Your task to perform on an android device: What's the weather going to be tomorrow? Image 0: 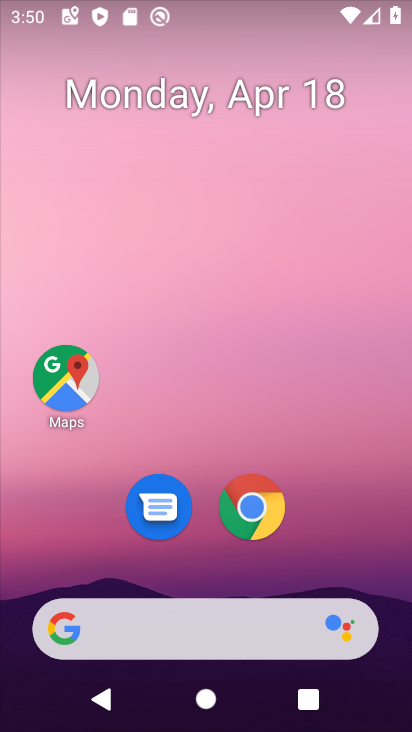
Step 0: click (260, 519)
Your task to perform on an android device: What's the weather going to be tomorrow? Image 1: 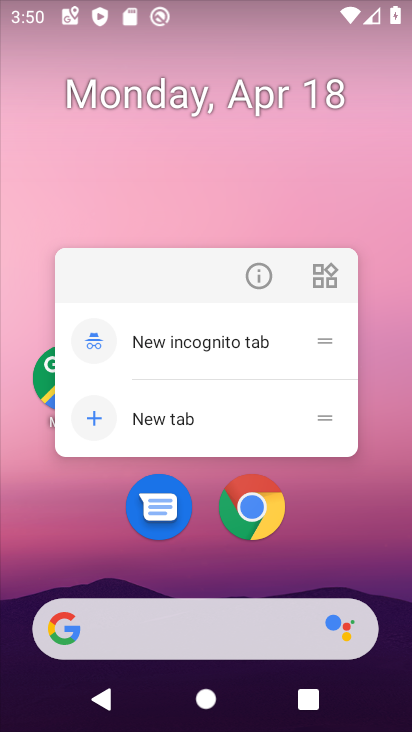
Step 1: click (260, 519)
Your task to perform on an android device: What's the weather going to be tomorrow? Image 2: 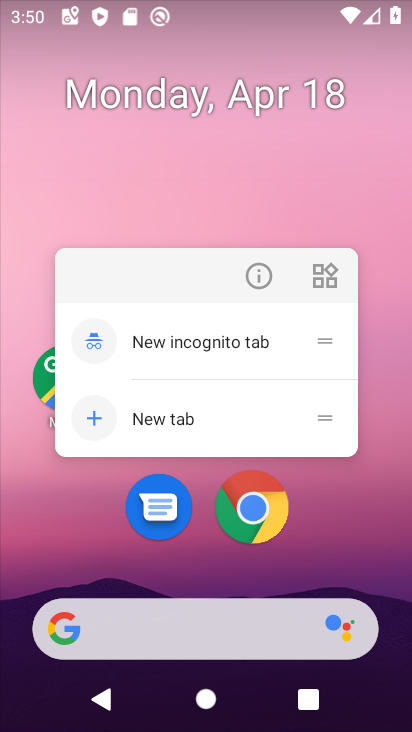
Step 2: click (270, 521)
Your task to perform on an android device: What's the weather going to be tomorrow? Image 3: 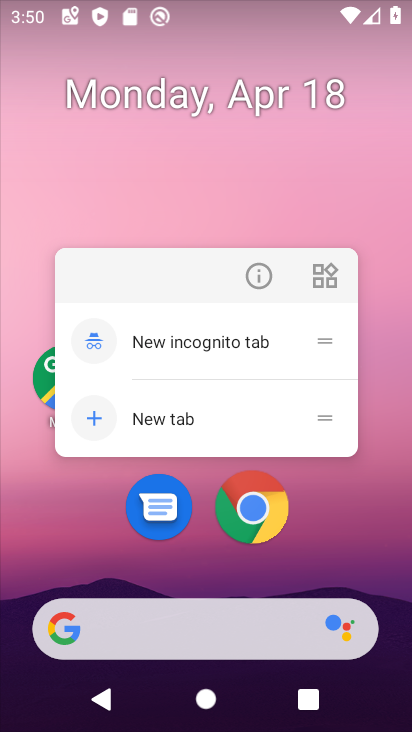
Step 3: click (270, 521)
Your task to perform on an android device: What's the weather going to be tomorrow? Image 4: 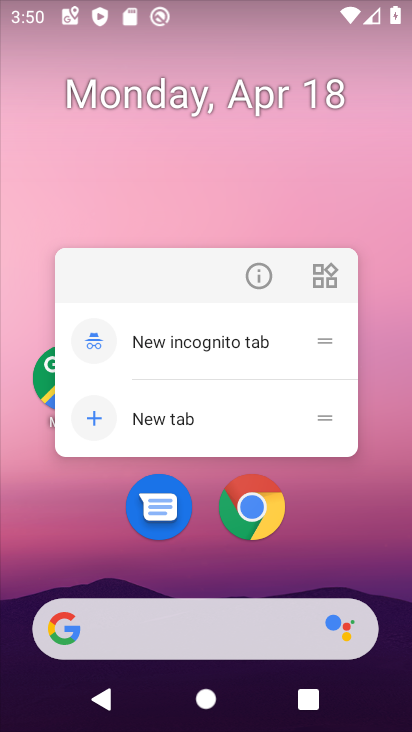
Step 4: click (258, 629)
Your task to perform on an android device: What's the weather going to be tomorrow? Image 5: 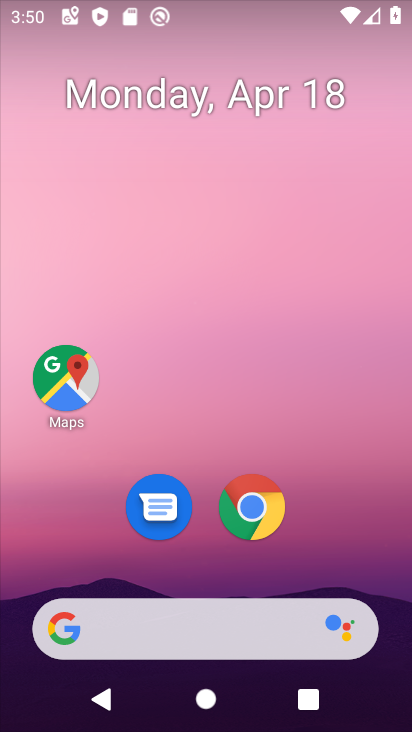
Step 5: click (258, 629)
Your task to perform on an android device: What's the weather going to be tomorrow? Image 6: 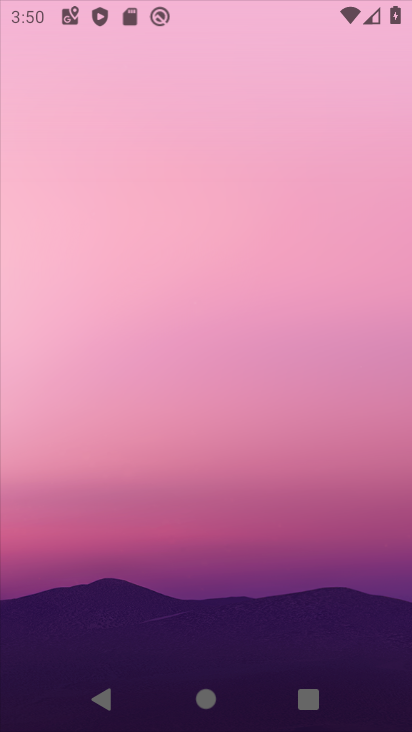
Step 6: click (258, 629)
Your task to perform on an android device: What's the weather going to be tomorrow? Image 7: 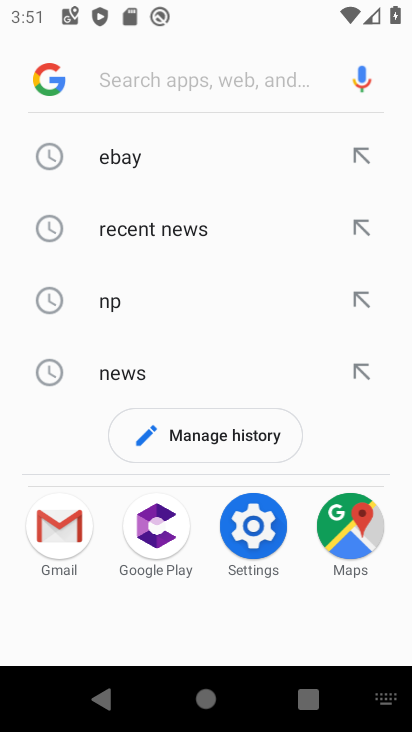
Step 7: type "What's the weather going to be tomorrow?"
Your task to perform on an android device: What's the weather going to be tomorrow? Image 8: 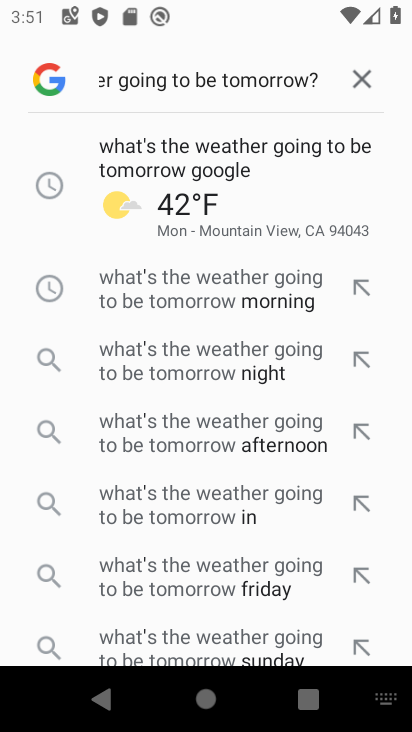
Step 8: click (199, 153)
Your task to perform on an android device: What's the weather going to be tomorrow? Image 9: 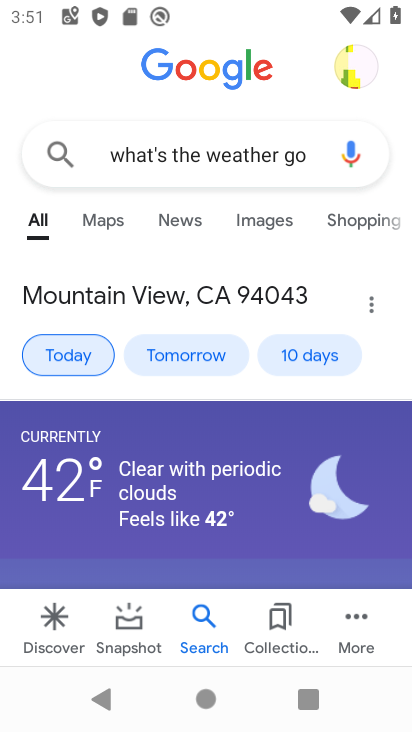
Step 9: task complete